Your task to perform on an android device: Go to display settings Image 0: 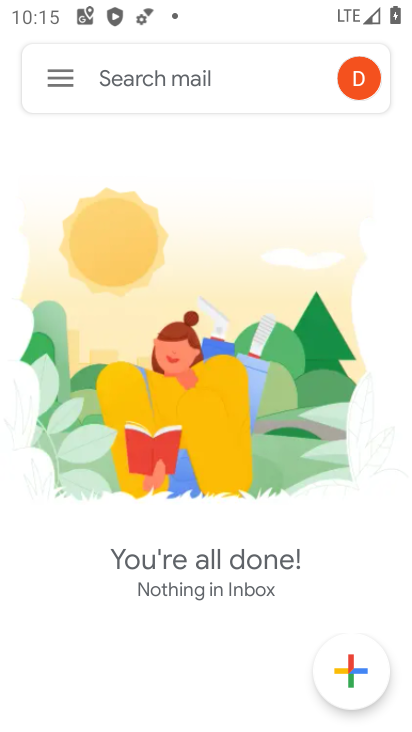
Step 0: press home button
Your task to perform on an android device: Go to display settings Image 1: 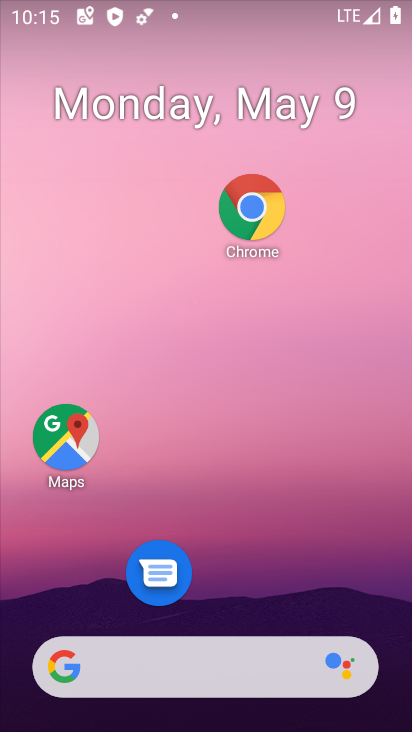
Step 1: drag from (232, 627) to (270, 89)
Your task to perform on an android device: Go to display settings Image 2: 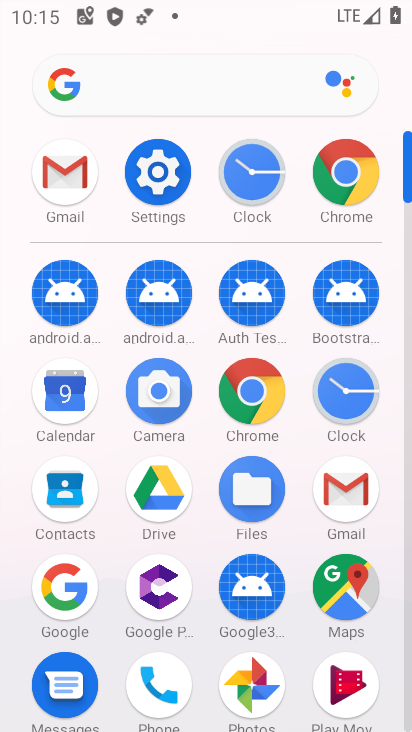
Step 2: click (166, 184)
Your task to perform on an android device: Go to display settings Image 3: 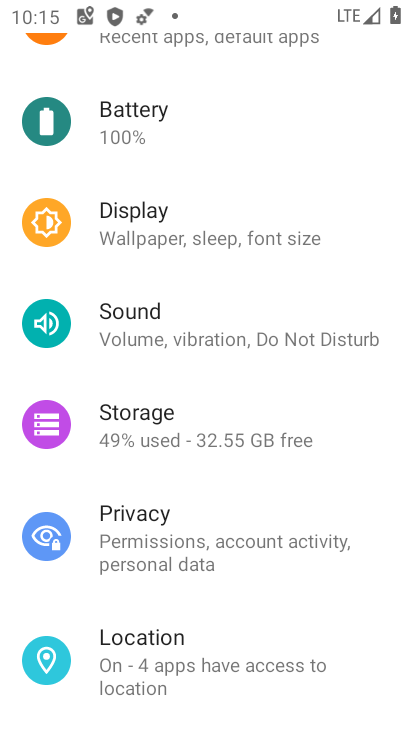
Step 3: click (212, 243)
Your task to perform on an android device: Go to display settings Image 4: 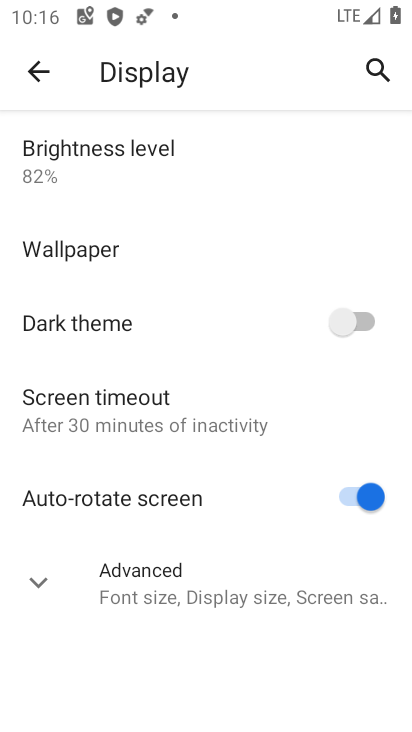
Step 4: click (184, 589)
Your task to perform on an android device: Go to display settings Image 5: 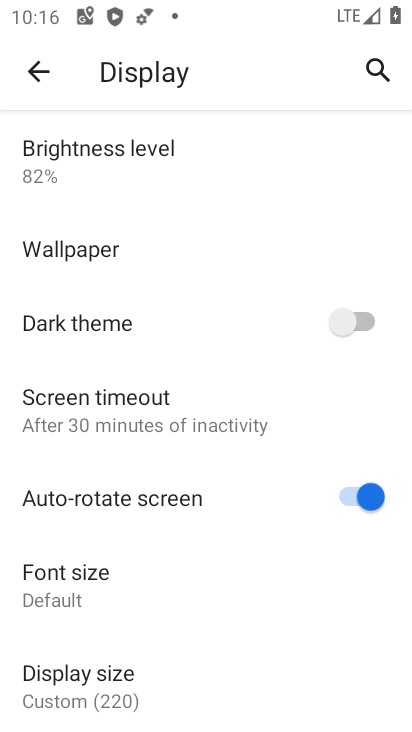
Step 5: task complete